Your task to perform on an android device: Search for sushi restaurants on Maps Image 0: 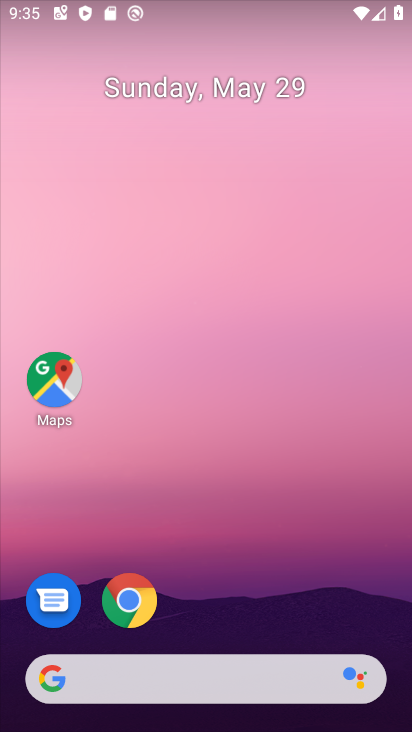
Step 0: drag from (236, 723) to (220, 162)
Your task to perform on an android device: Search for sushi restaurants on Maps Image 1: 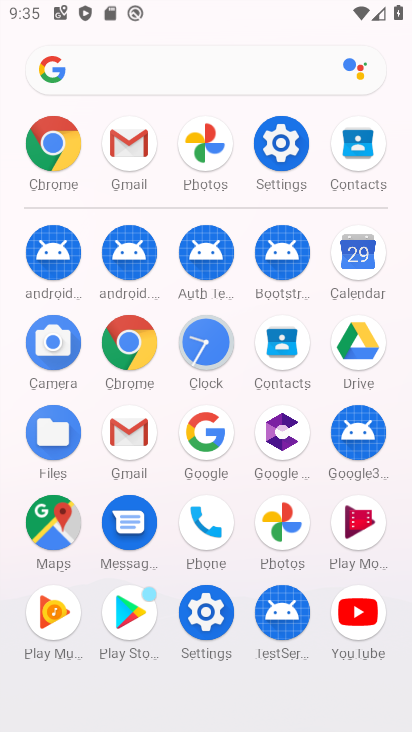
Step 1: click (56, 522)
Your task to perform on an android device: Search for sushi restaurants on Maps Image 2: 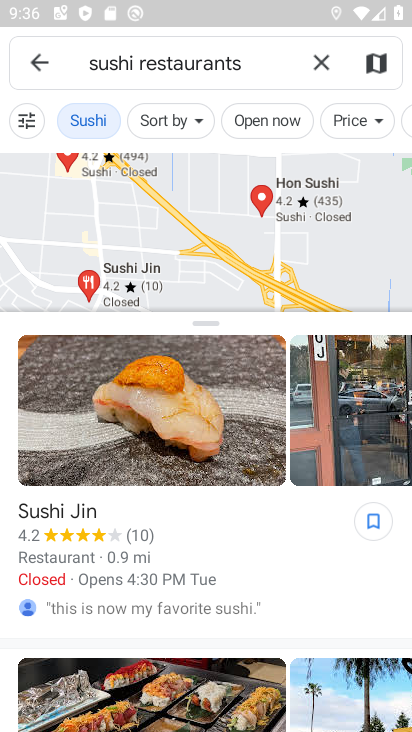
Step 2: task complete